Your task to perform on an android device: toggle show notifications on the lock screen Image 0: 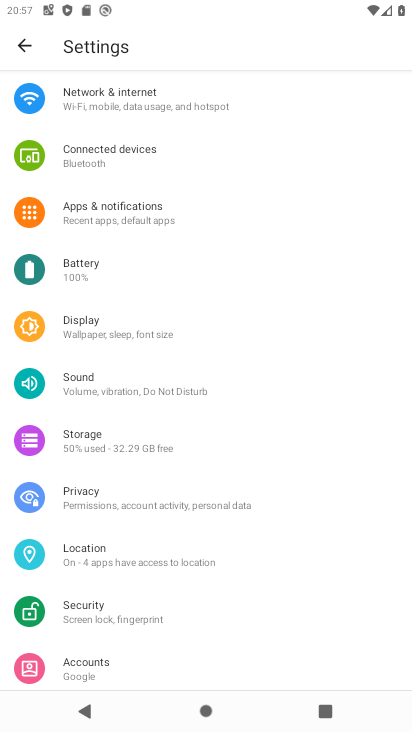
Step 0: click (133, 205)
Your task to perform on an android device: toggle show notifications on the lock screen Image 1: 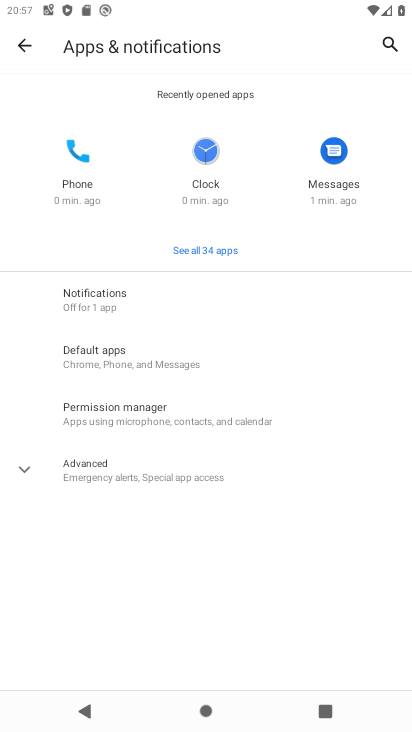
Step 1: click (93, 291)
Your task to perform on an android device: toggle show notifications on the lock screen Image 2: 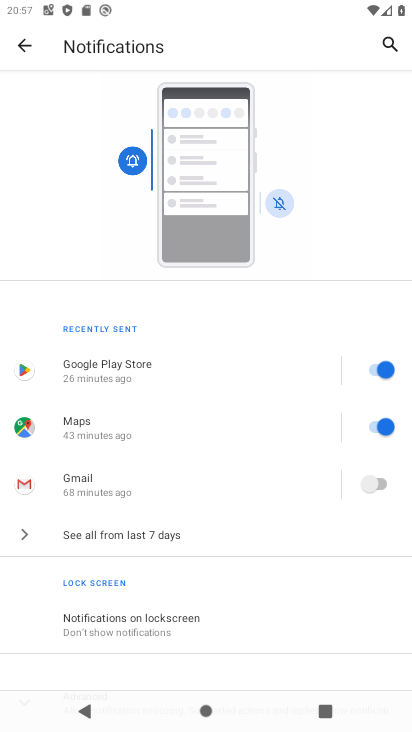
Step 2: click (147, 613)
Your task to perform on an android device: toggle show notifications on the lock screen Image 3: 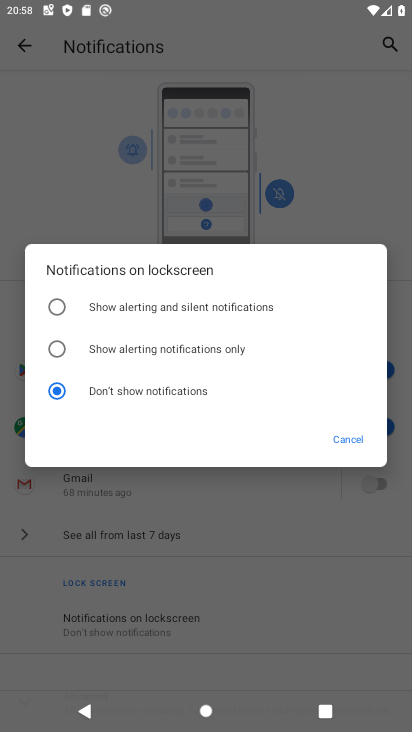
Step 3: click (52, 311)
Your task to perform on an android device: toggle show notifications on the lock screen Image 4: 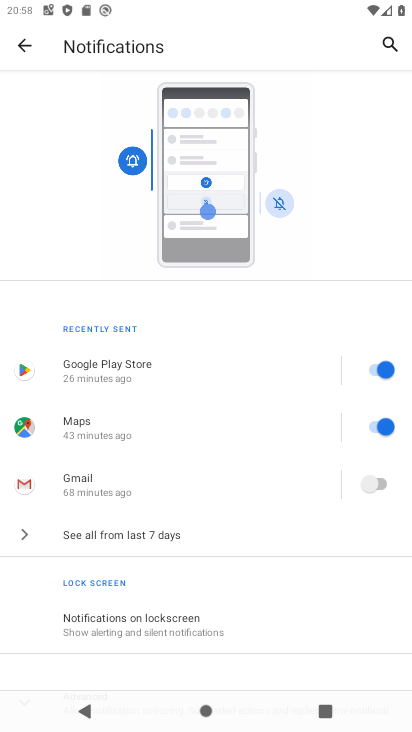
Step 4: task complete